Your task to perform on an android device: Open Yahoo.com Image 0: 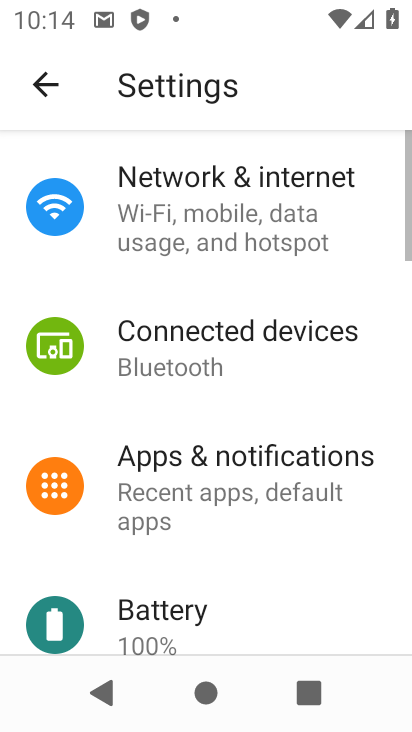
Step 0: press home button
Your task to perform on an android device: Open Yahoo.com Image 1: 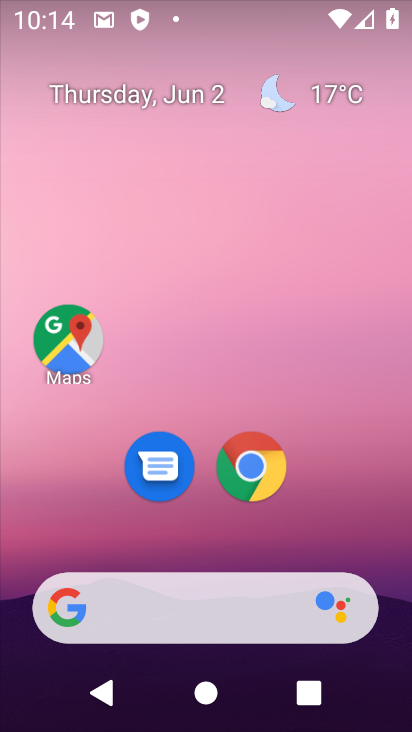
Step 1: click (71, 612)
Your task to perform on an android device: Open Yahoo.com Image 2: 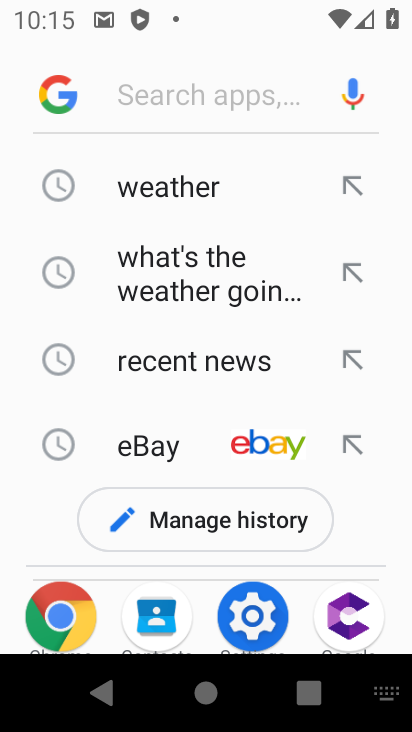
Step 2: type "Yahoo.com"
Your task to perform on an android device: Open Yahoo.com Image 3: 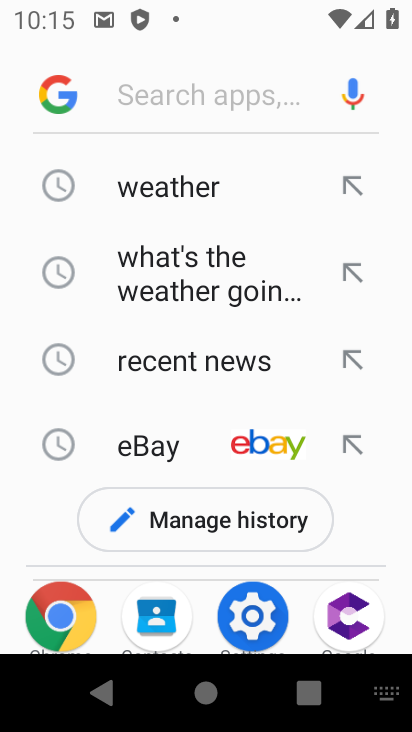
Step 3: click (191, 95)
Your task to perform on an android device: Open Yahoo.com Image 4: 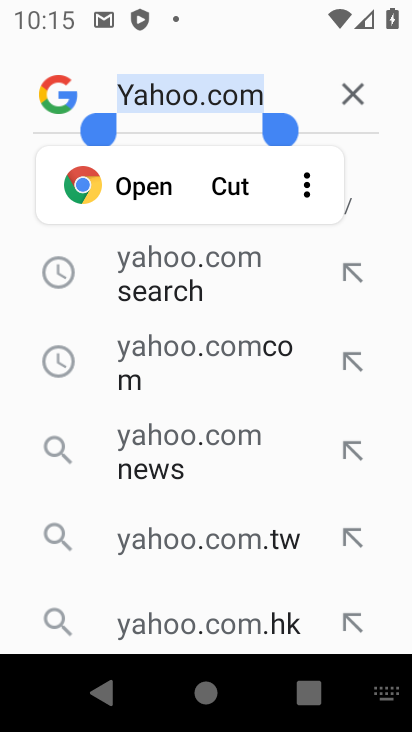
Step 4: click (168, 182)
Your task to perform on an android device: Open Yahoo.com Image 5: 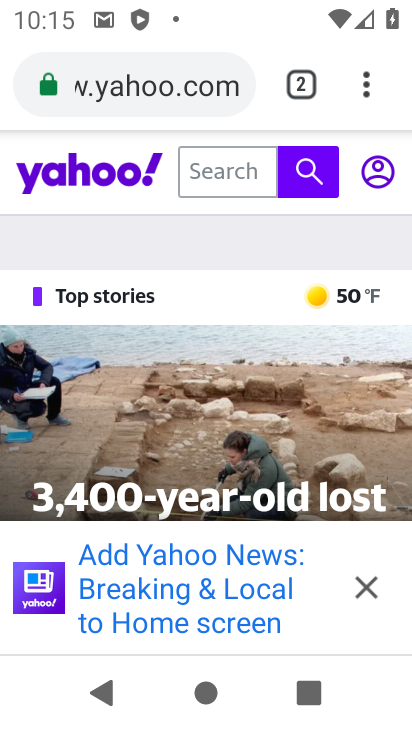
Step 5: task complete